Your task to perform on an android device: open a bookmark in the chrome app Image 0: 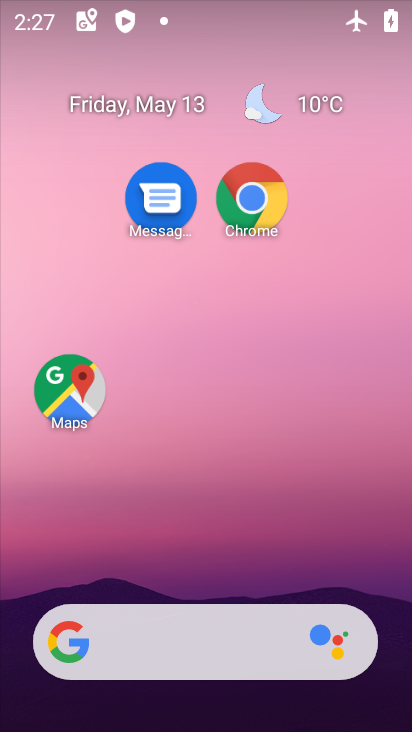
Step 0: click (236, 185)
Your task to perform on an android device: open a bookmark in the chrome app Image 1: 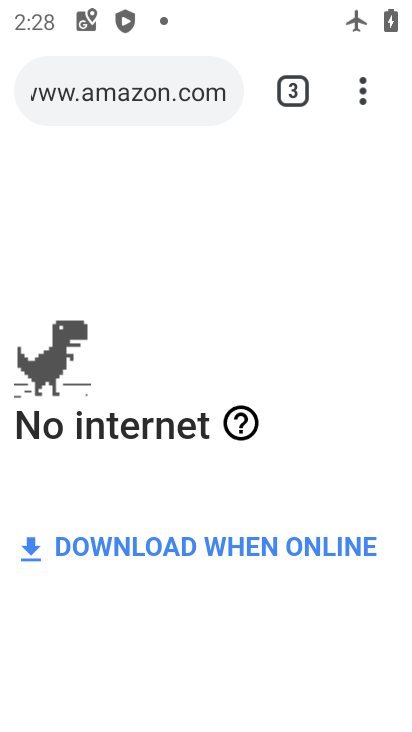
Step 1: click (372, 97)
Your task to perform on an android device: open a bookmark in the chrome app Image 2: 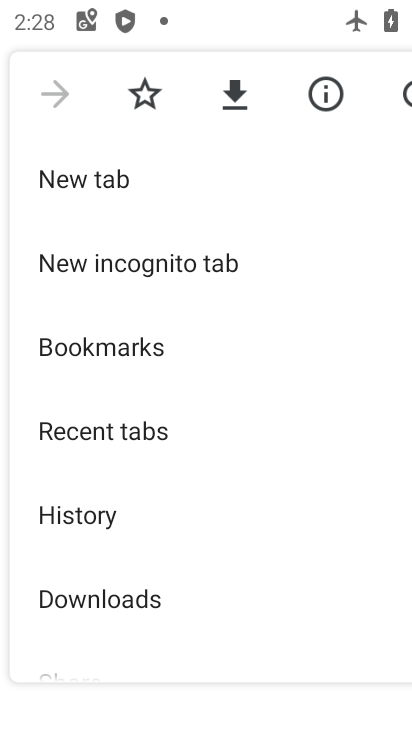
Step 2: click (140, 347)
Your task to perform on an android device: open a bookmark in the chrome app Image 3: 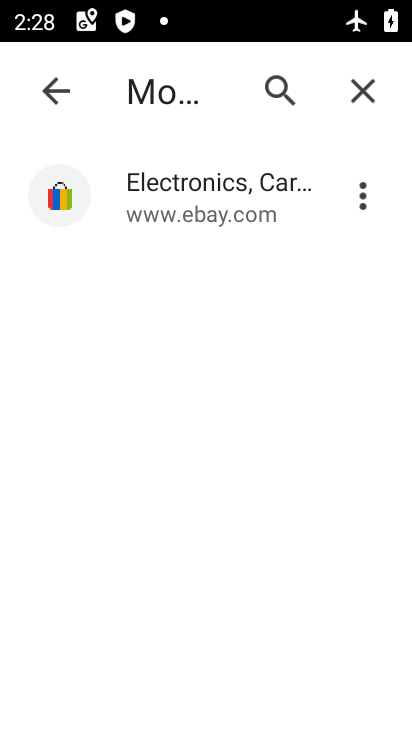
Step 3: task complete